Your task to perform on an android device: open chrome privacy settings Image 0: 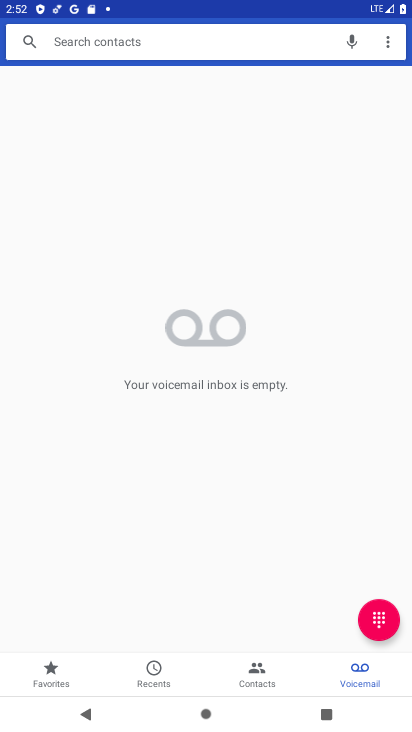
Step 0: press home button
Your task to perform on an android device: open chrome privacy settings Image 1: 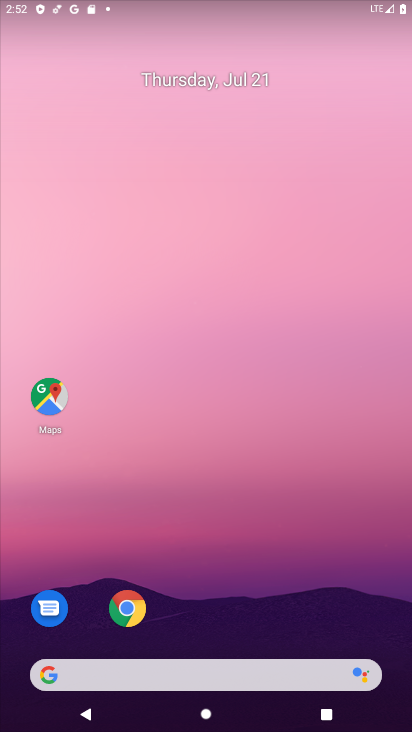
Step 1: drag from (194, 647) to (136, 8)
Your task to perform on an android device: open chrome privacy settings Image 2: 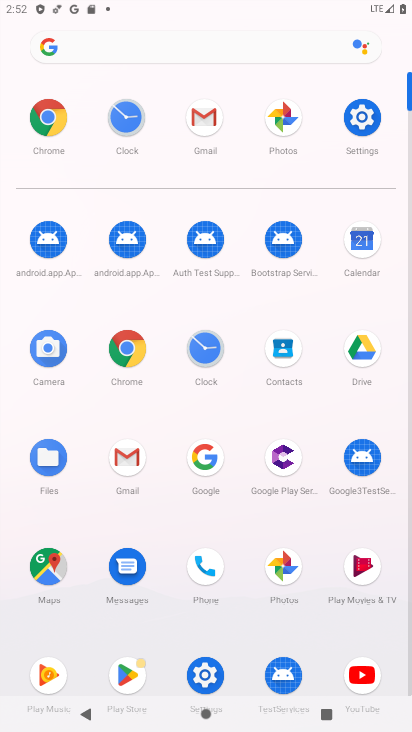
Step 2: click (126, 358)
Your task to perform on an android device: open chrome privacy settings Image 3: 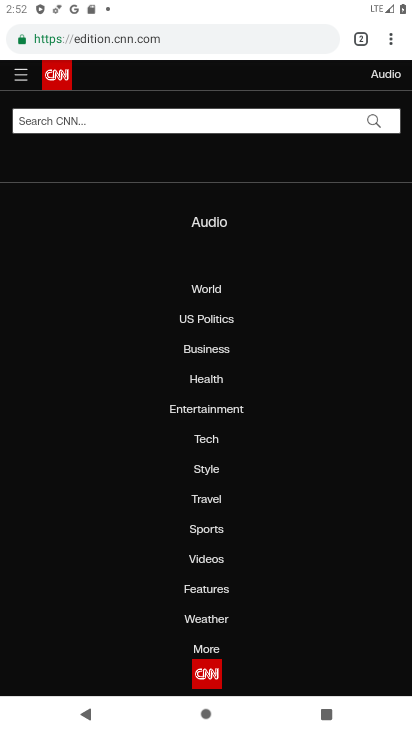
Step 3: drag from (390, 38) to (260, 520)
Your task to perform on an android device: open chrome privacy settings Image 4: 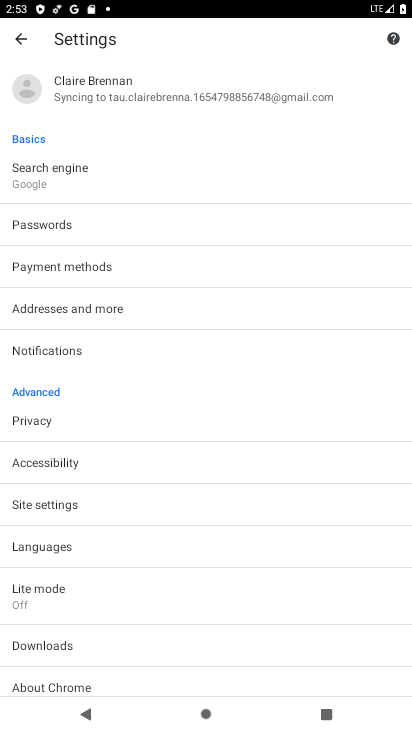
Step 4: click (36, 415)
Your task to perform on an android device: open chrome privacy settings Image 5: 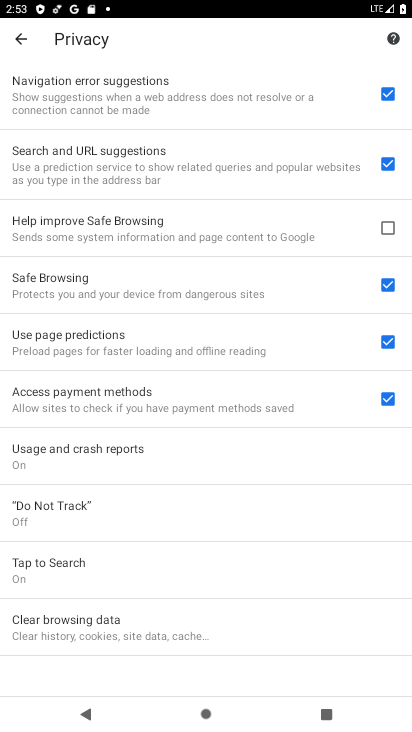
Step 5: task complete